Your task to perform on an android device: read, delete, or share a saved page in the chrome app Image 0: 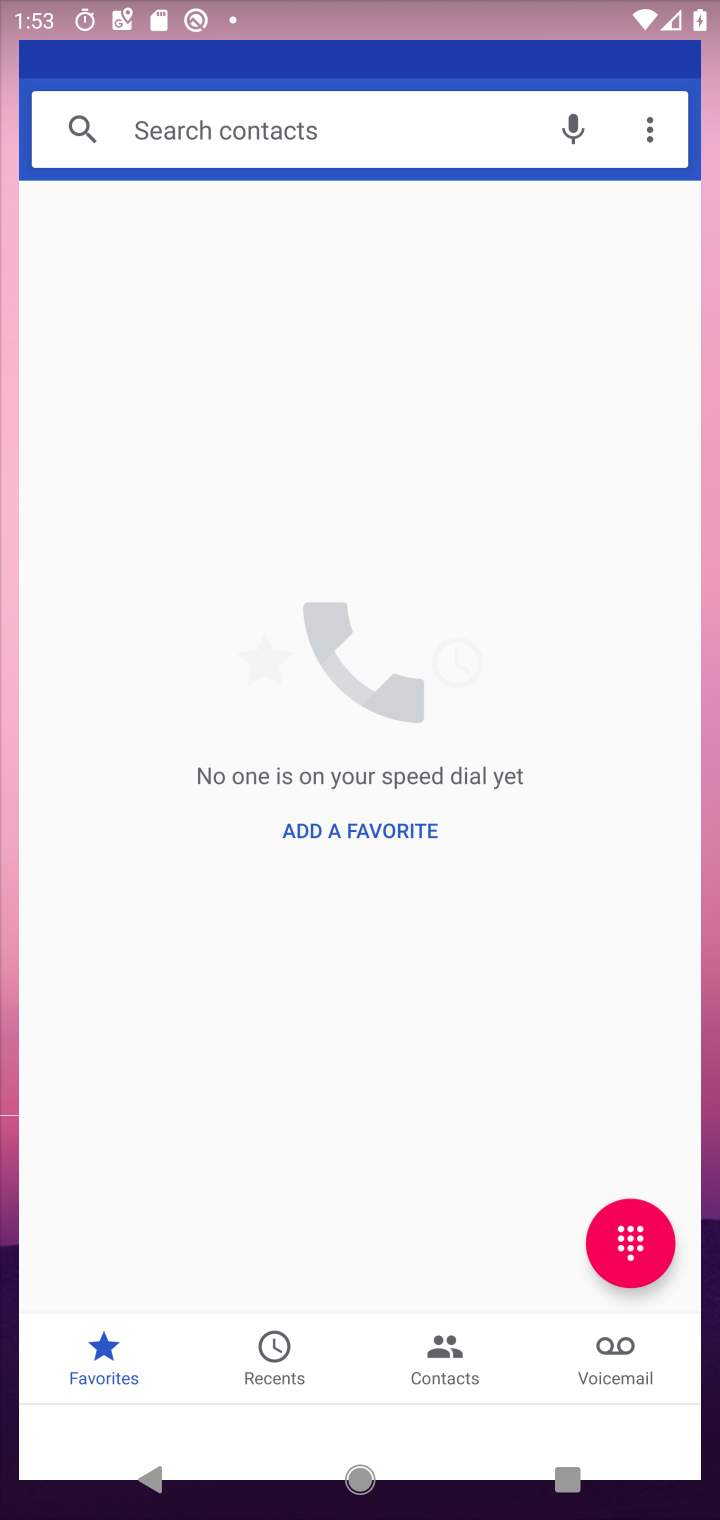
Step 0: press home button
Your task to perform on an android device: read, delete, or share a saved page in the chrome app Image 1: 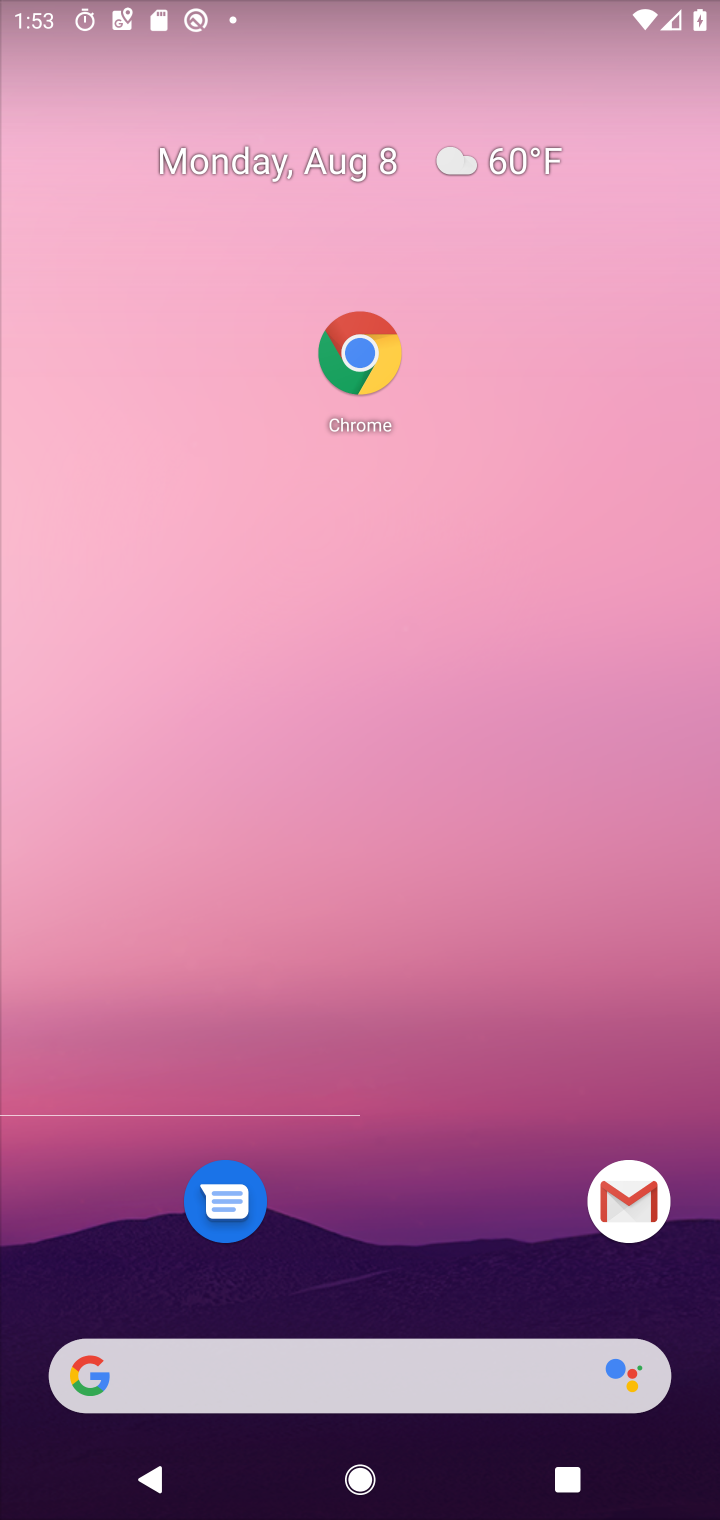
Step 1: drag from (407, 1391) to (681, 339)
Your task to perform on an android device: read, delete, or share a saved page in the chrome app Image 2: 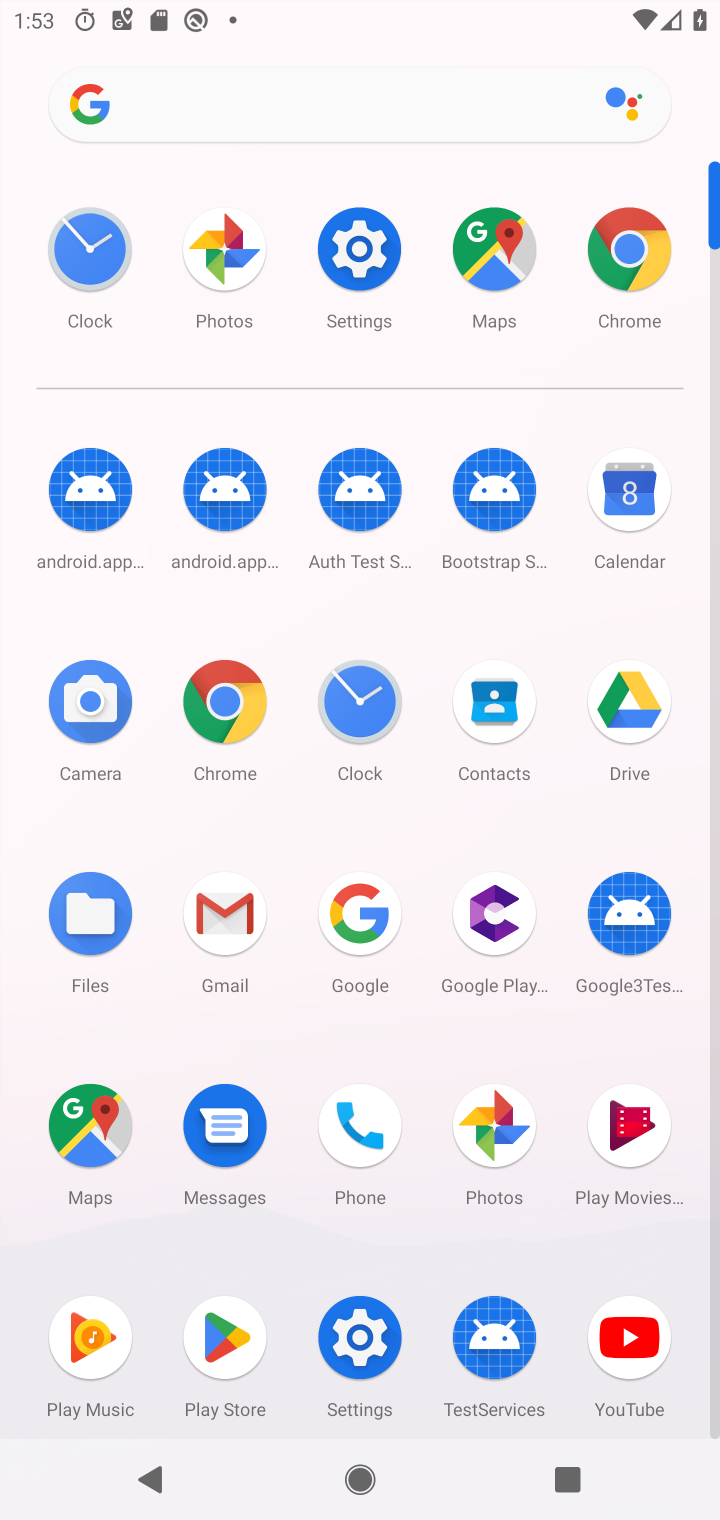
Step 2: click (617, 257)
Your task to perform on an android device: read, delete, or share a saved page in the chrome app Image 3: 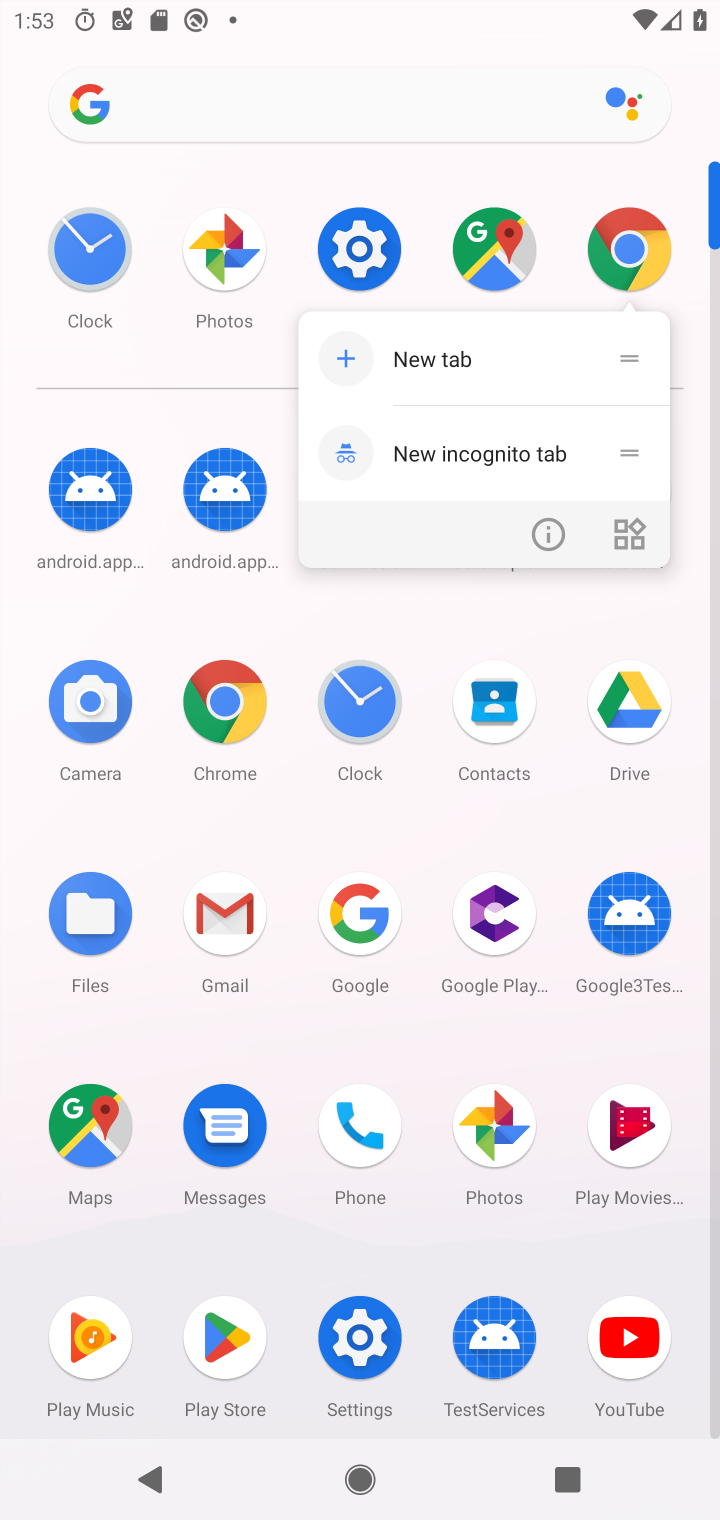
Step 3: click (624, 273)
Your task to perform on an android device: read, delete, or share a saved page in the chrome app Image 4: 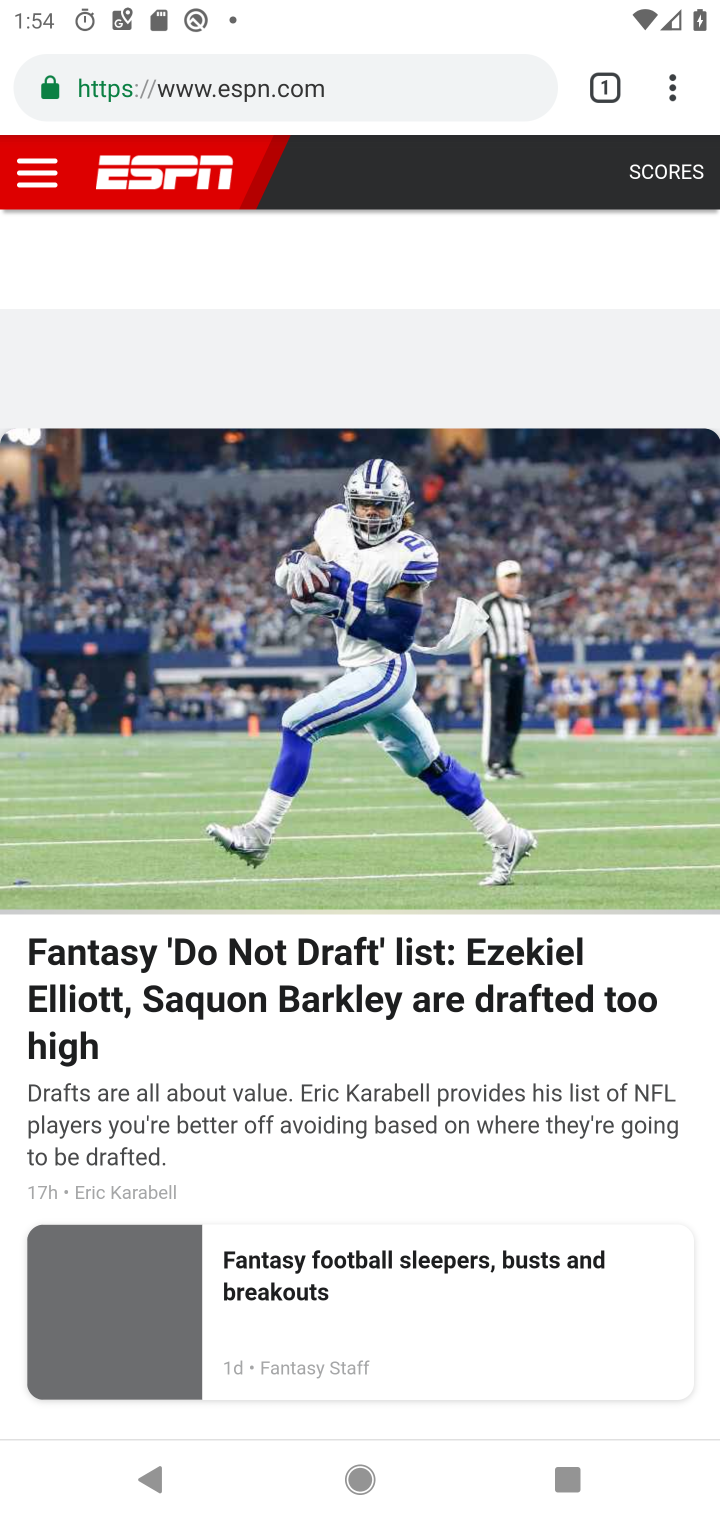
Step 4: click (669, 98)
Your task to perform on an android device: read, delete, or share a saved page in the chrome app Image 5: 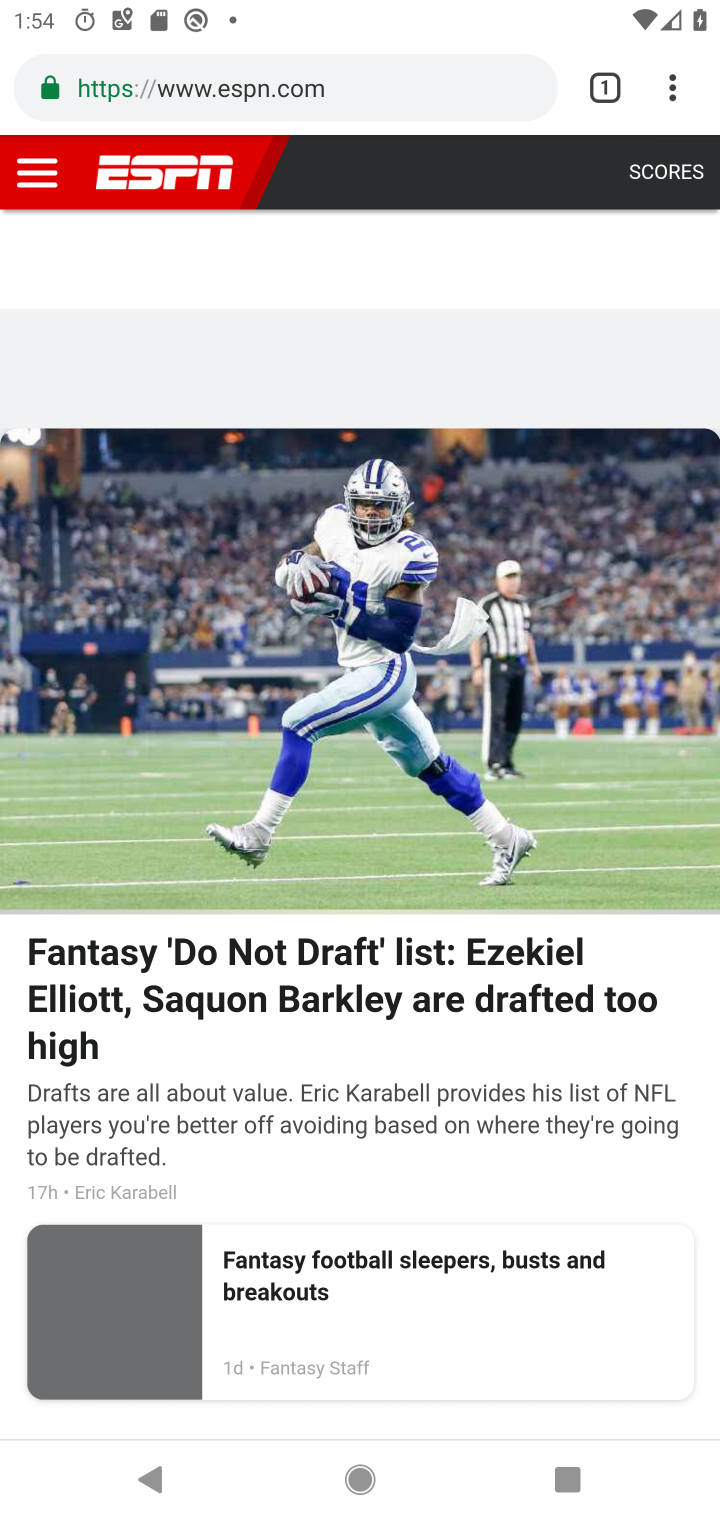
Step 5: click (670, 110)
Your task to perform on an android device: read, delete, or share a saved page in the chrome app Image 6: 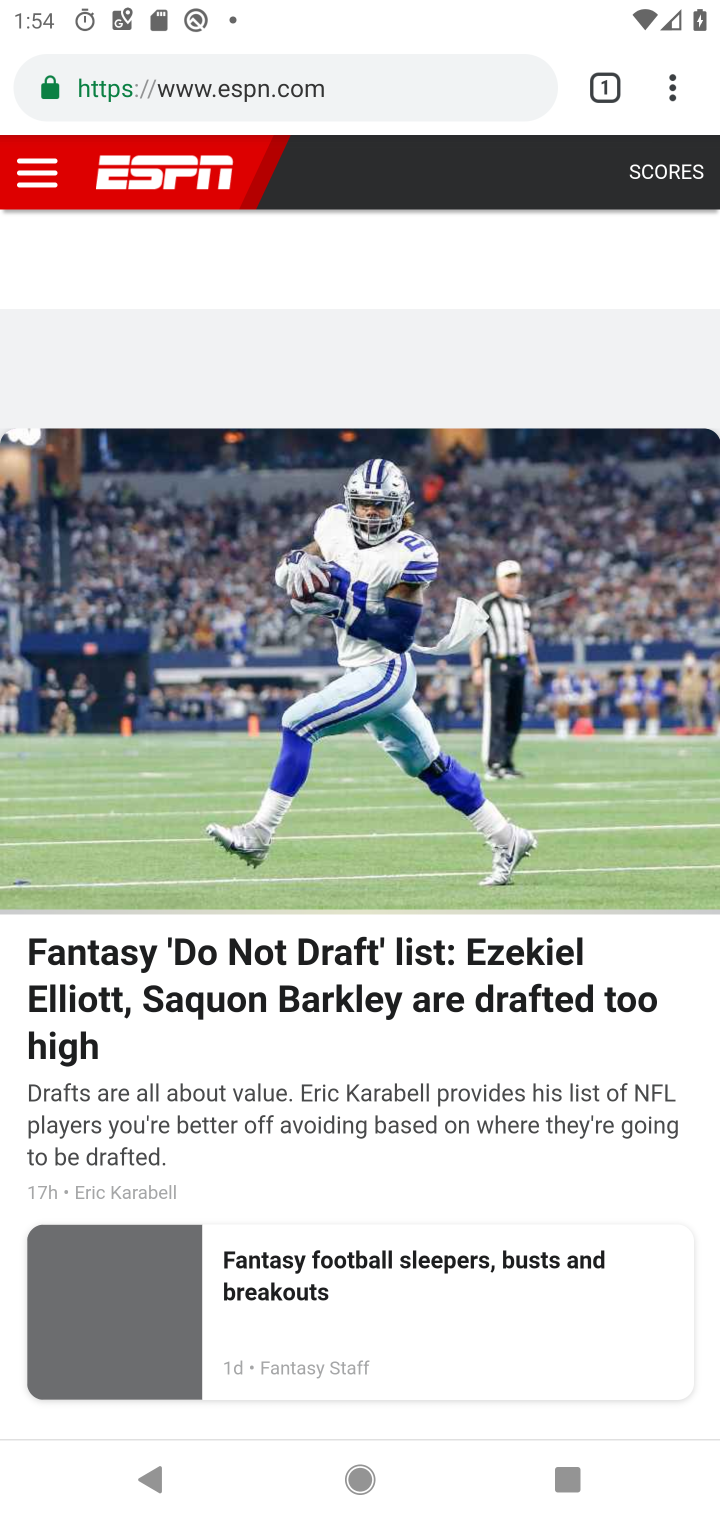
Step 6: click (664, 91)
Your task to perform on an android device: read, delete, or share a saved page in the chrome app Image 7: 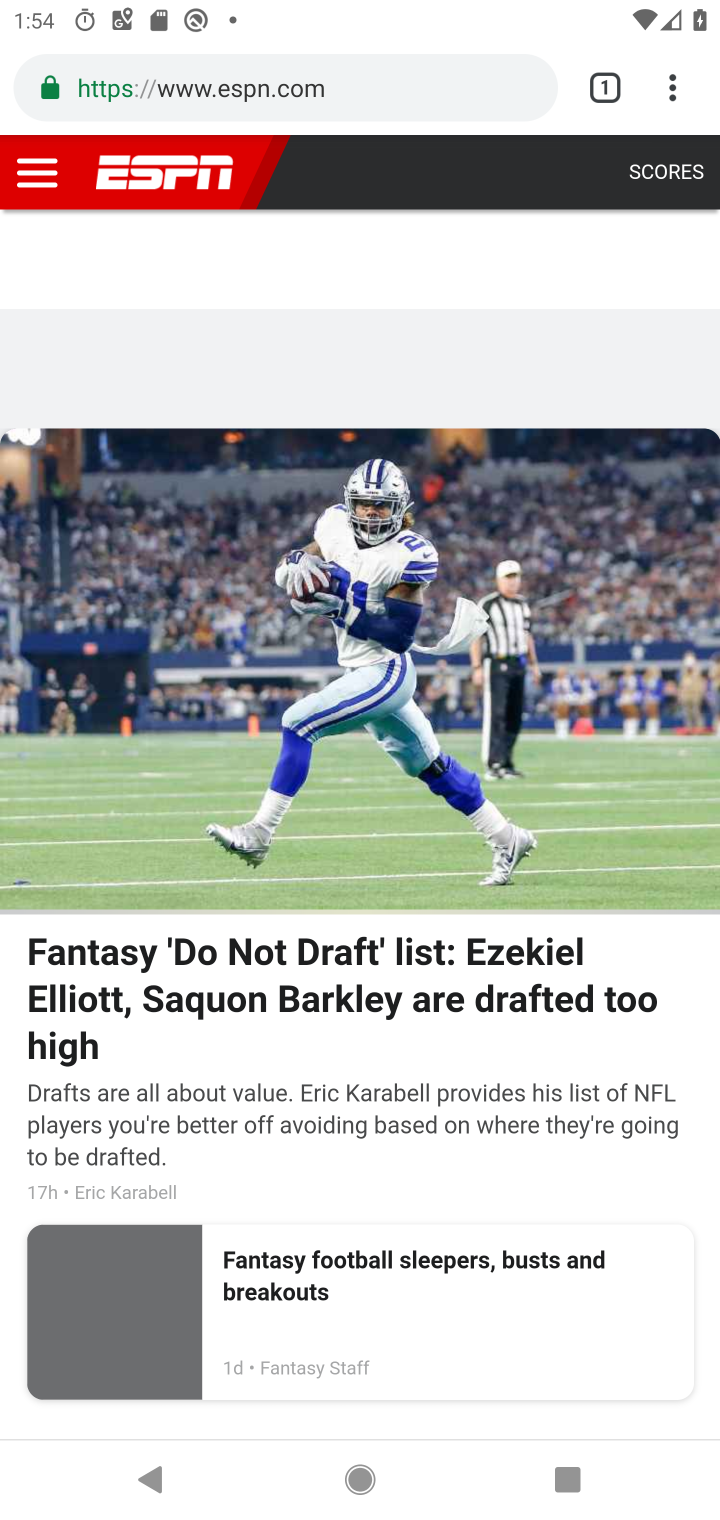
Step 7: click (648, 110)
Your task to perform on an android device: read, delete, or share a saved page in the chrome app Image 8: 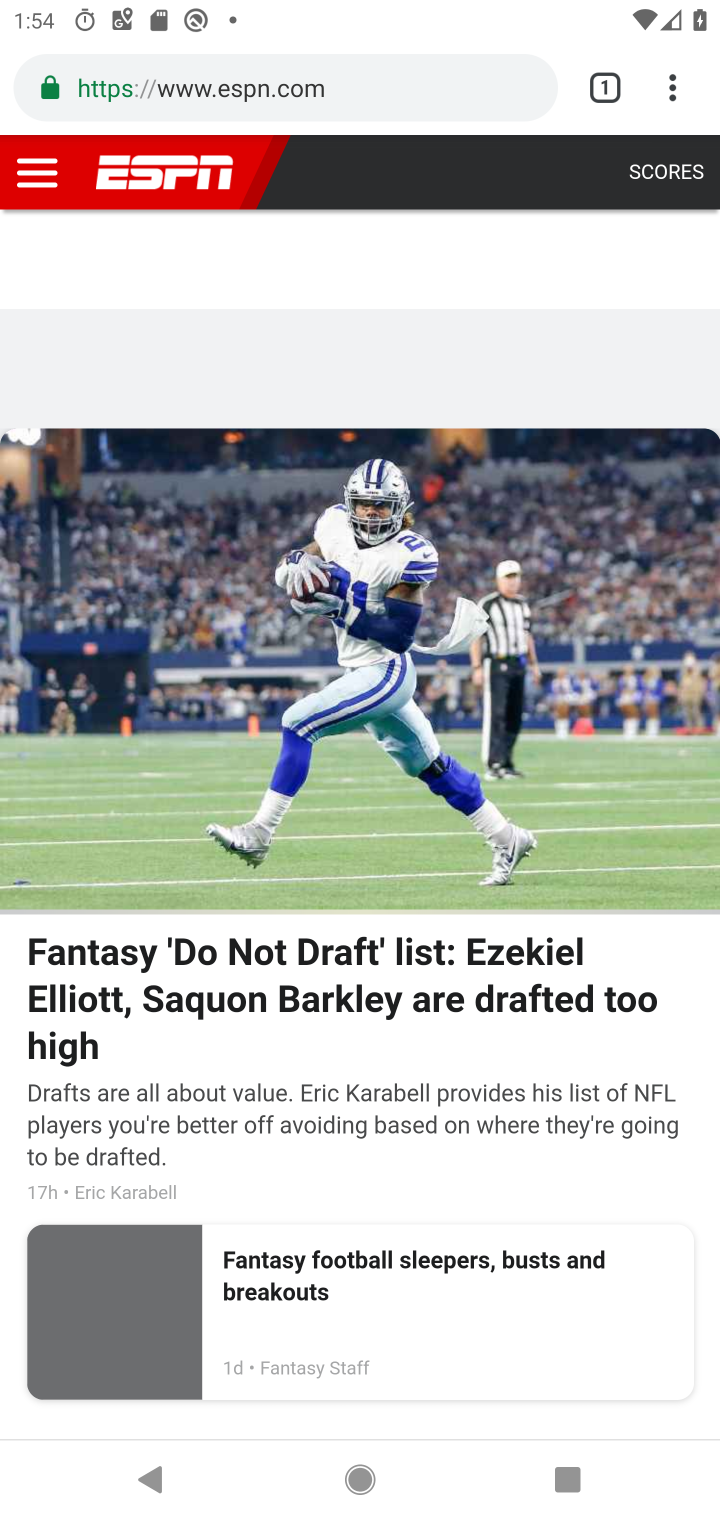
Step 8: click (657, 100)
Your task to perform on an android device: read, delete, or share a saved page in the chrome app Image 9: 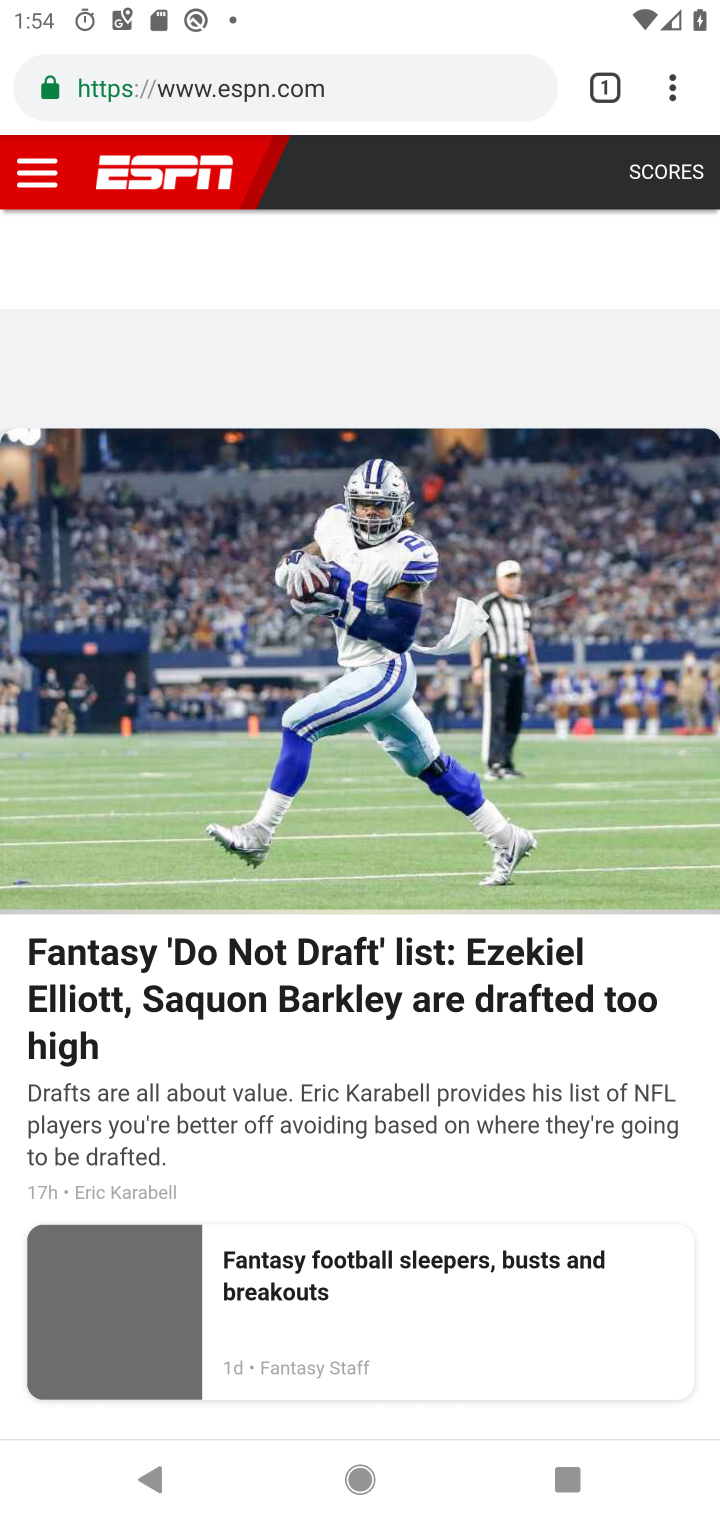
Step 9: click (658, 104)
Your task to perform on an android device: read, delete, or share a saved page in the chrome app Image 10: 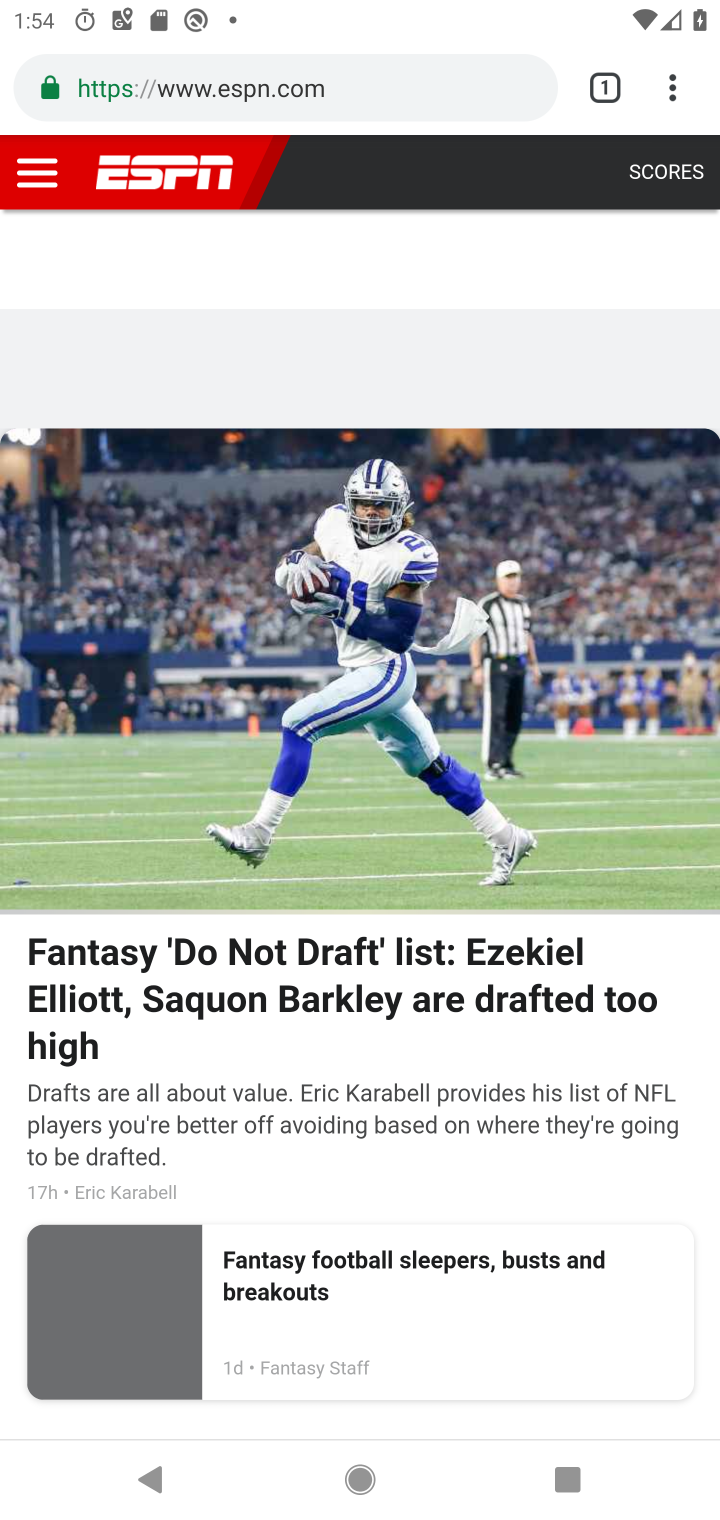
Step 10: click (673, 93)
Your task to perform on an android device: read, delete, or share a saved page in the chrome app Image 11: 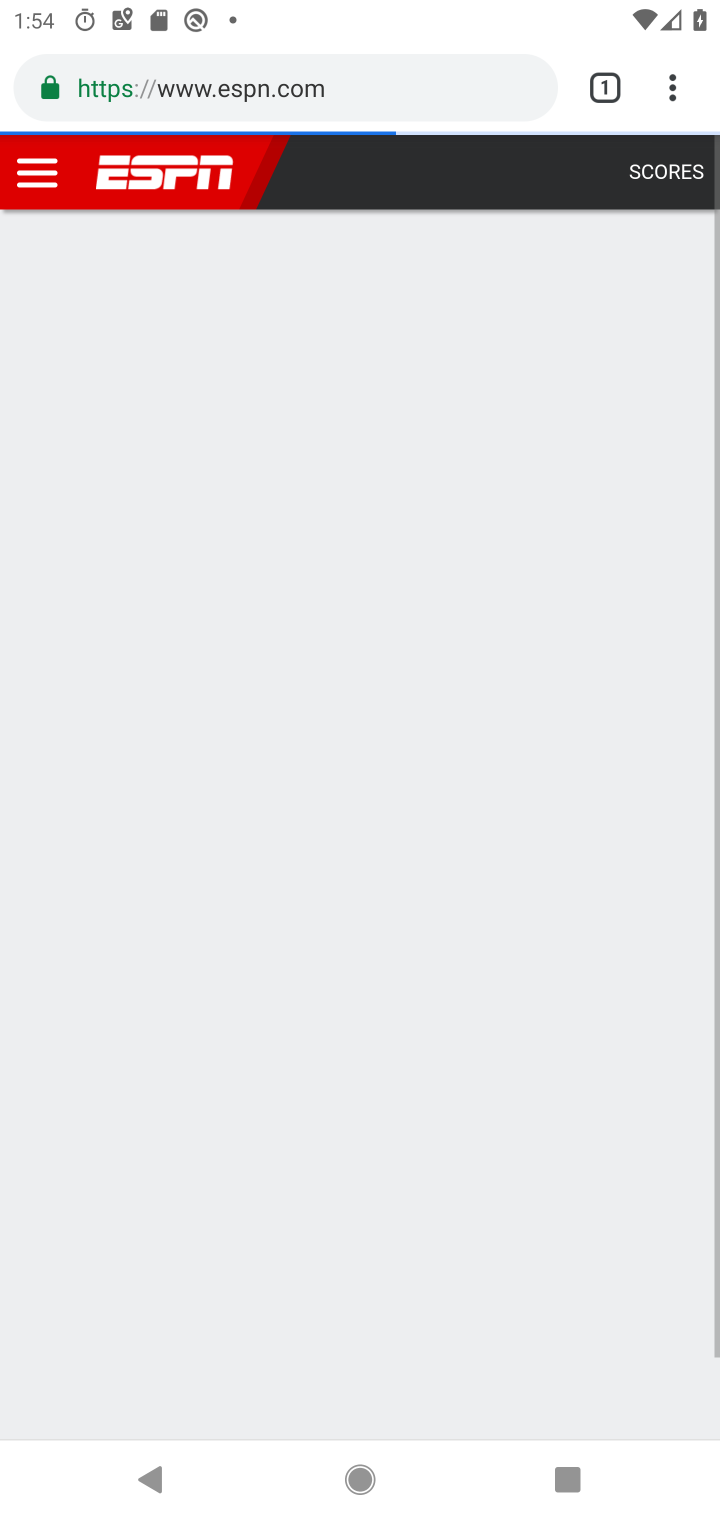
Step 11: click (657, 104)
Your task to perform on an android device: read, delete, or share a saved page in the chrome app Image 12: 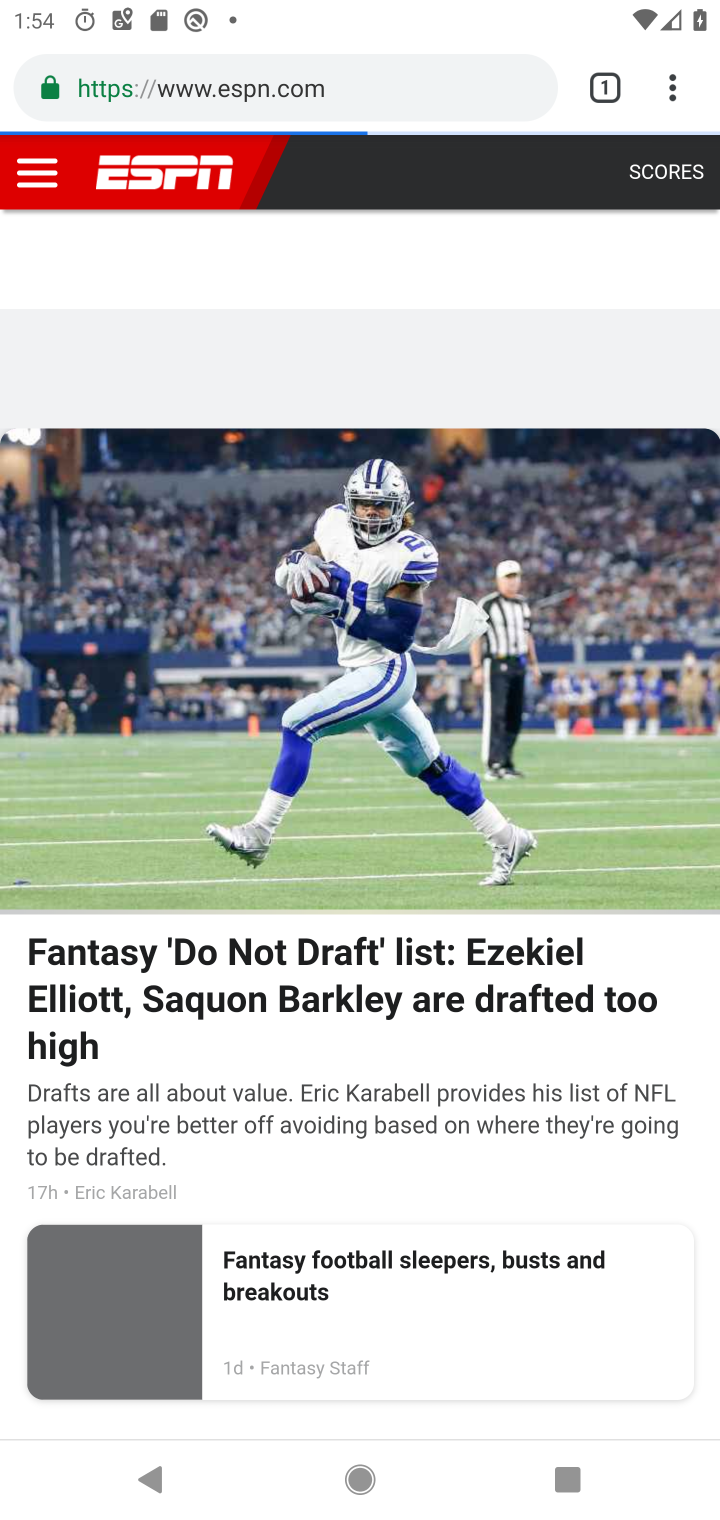
Step 12: click (655, 105)
Your task to perform on an android device: read, delete, or share a saved page in the chrome app Image 13: 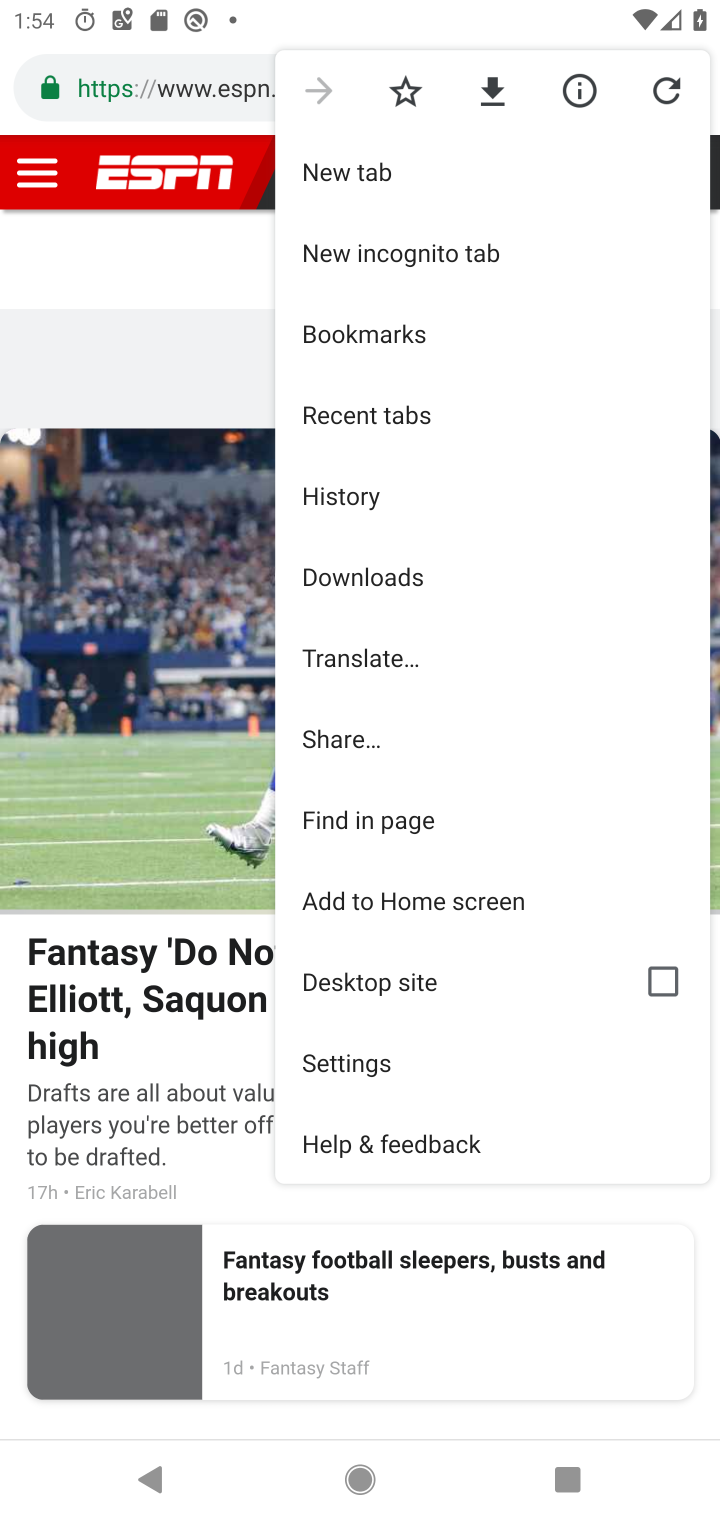
Step 13: click (362, 755)
Your task to perform on an android device: read, delete, or share a saved page in the chrome app Image 14: 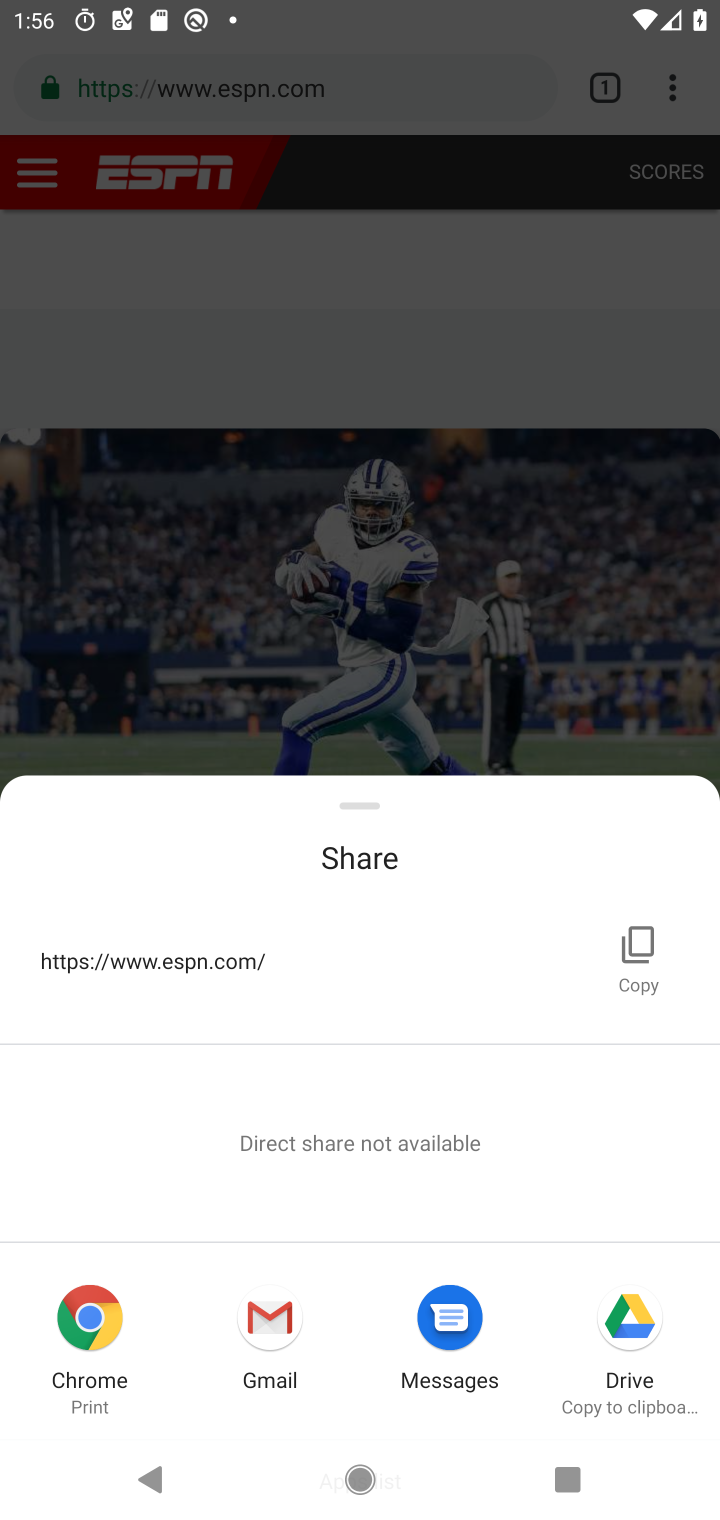
Step 14: task complete